Your task to perform on an android device: open app "Airtel Thanks" Image 0: 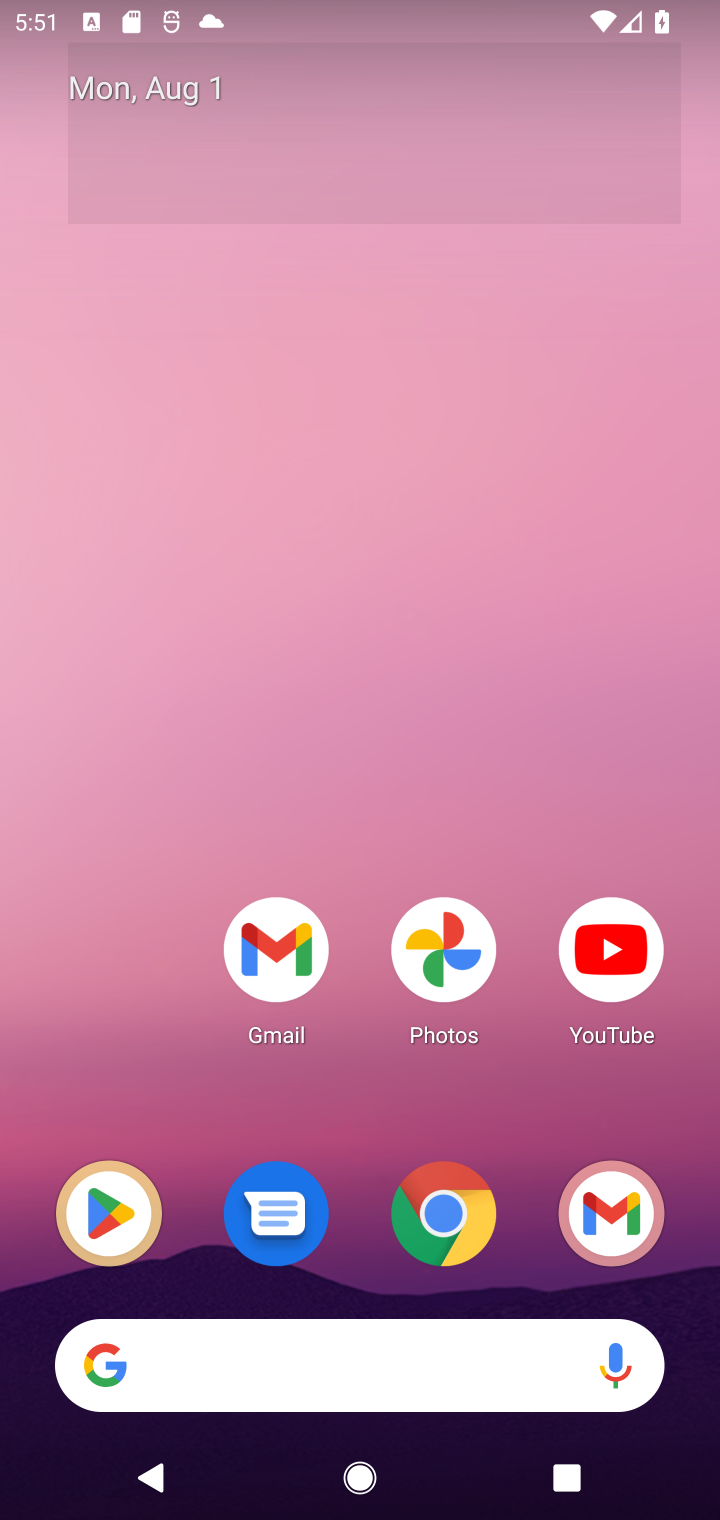
Step 0: drag from (518, 1084) to (467, 14)
Your task to perform on an android device: open app "Airtel Thanks" Image 1: 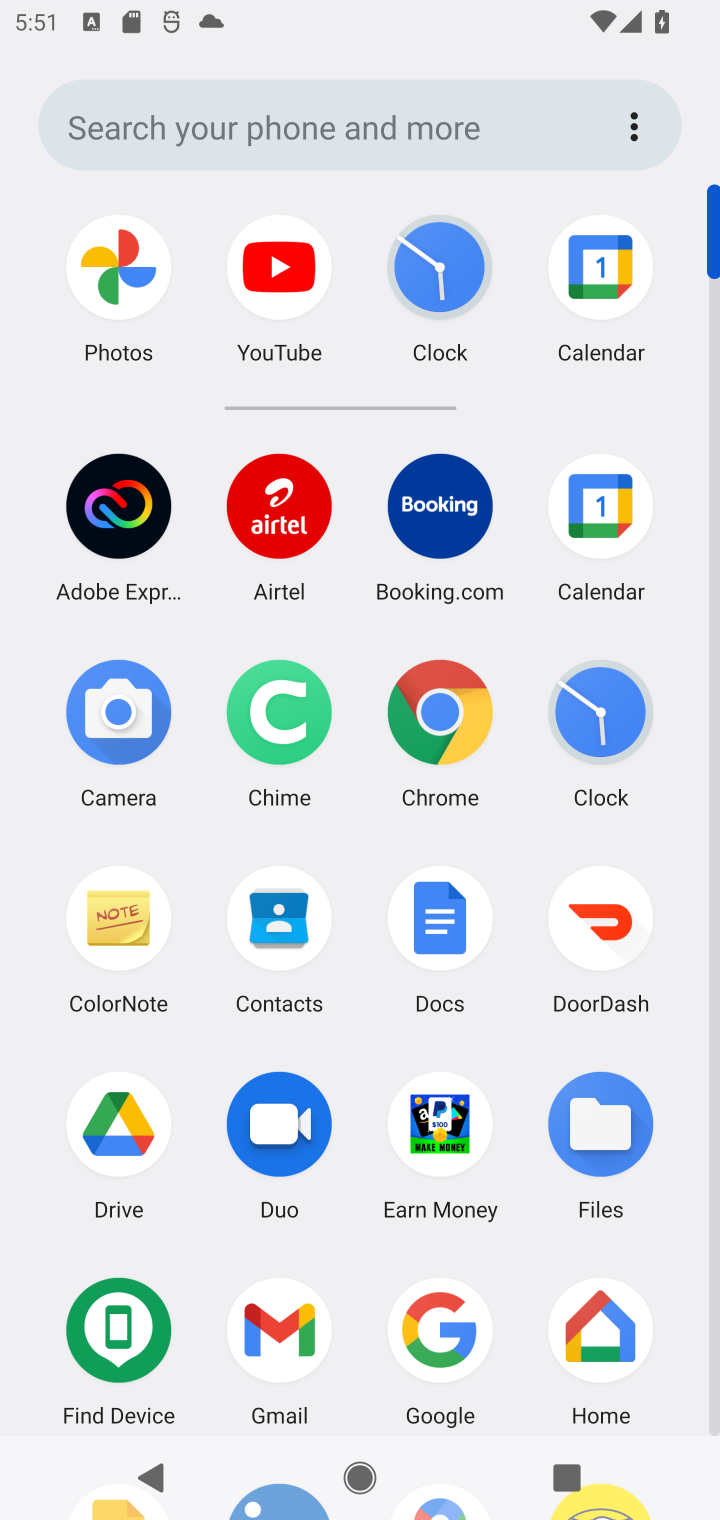
Step 1: drag from (507, 1177) to (520, 375)
Your task to perform on an android device: open app "Airtel Thanks" Image 2: 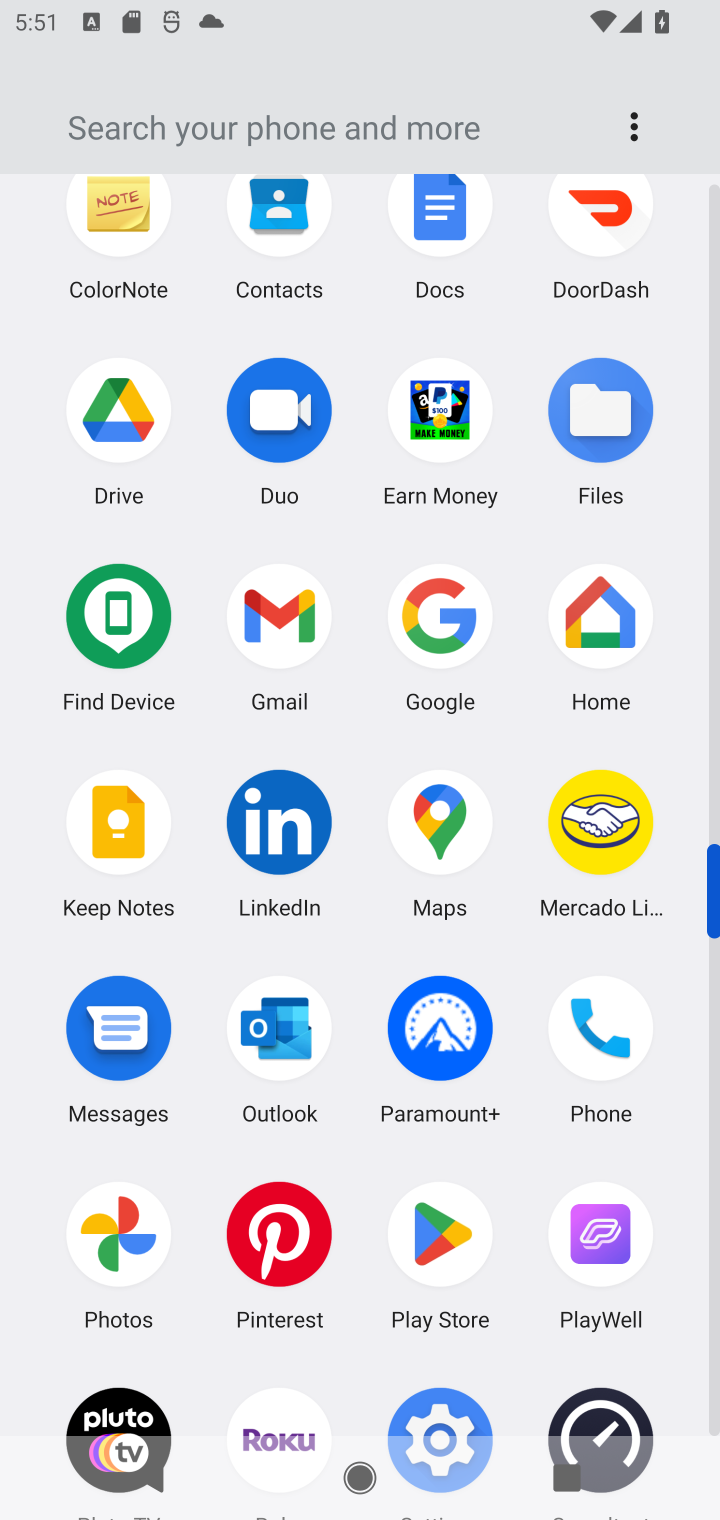
Step 2: click (442, 1236)
Your task to perform on an android device: open app "Airtel Thanks" Image 3: 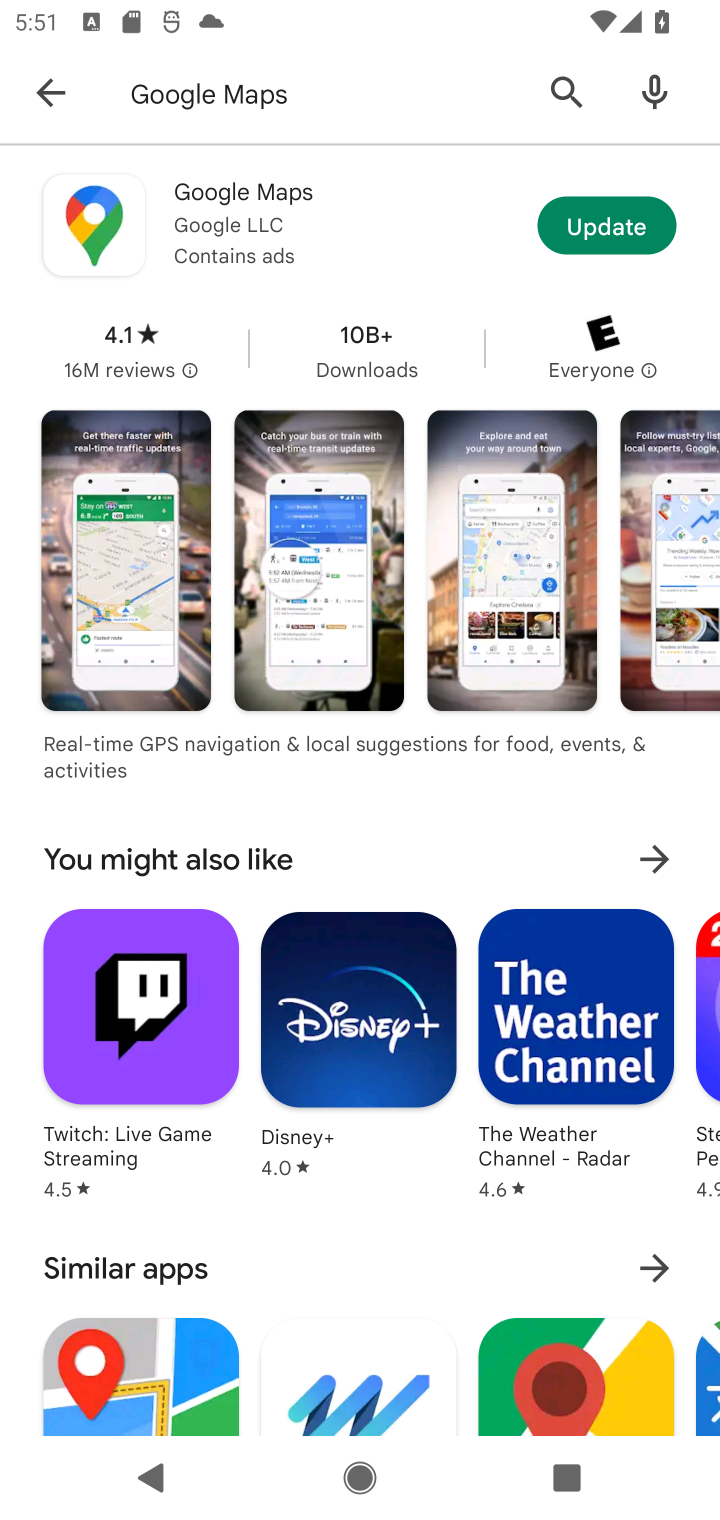
Step 3: click (316, 64)
Your task to perform on an android device: open app "Airtel Thanks" Image 4: 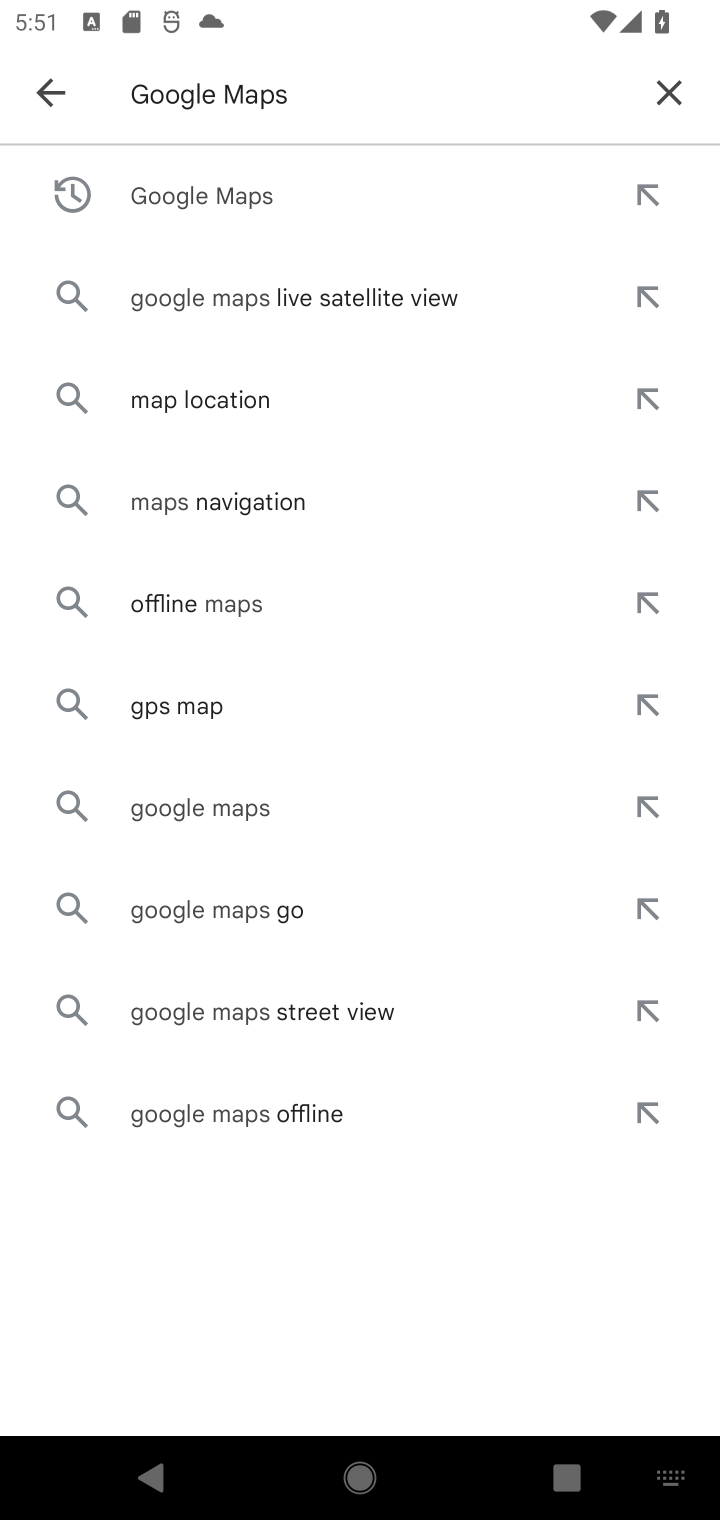
Step 4: click (682, 79)
Your task to perform on an android device: open app "Airtel Thanks" Image 5: 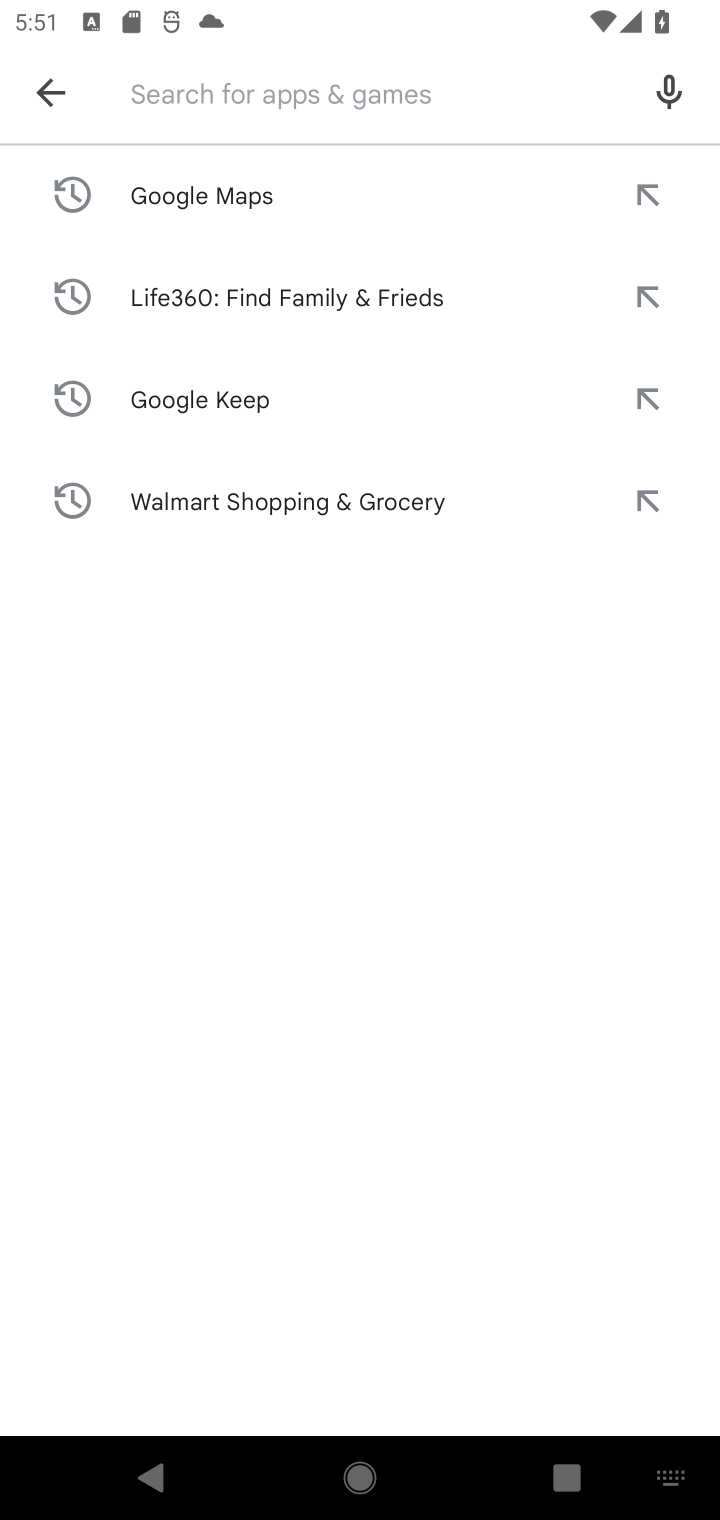
Step 5: type "Airtel Thanks"
Your task to perform on an android device: open app "Airtel Thanks" Image 6: 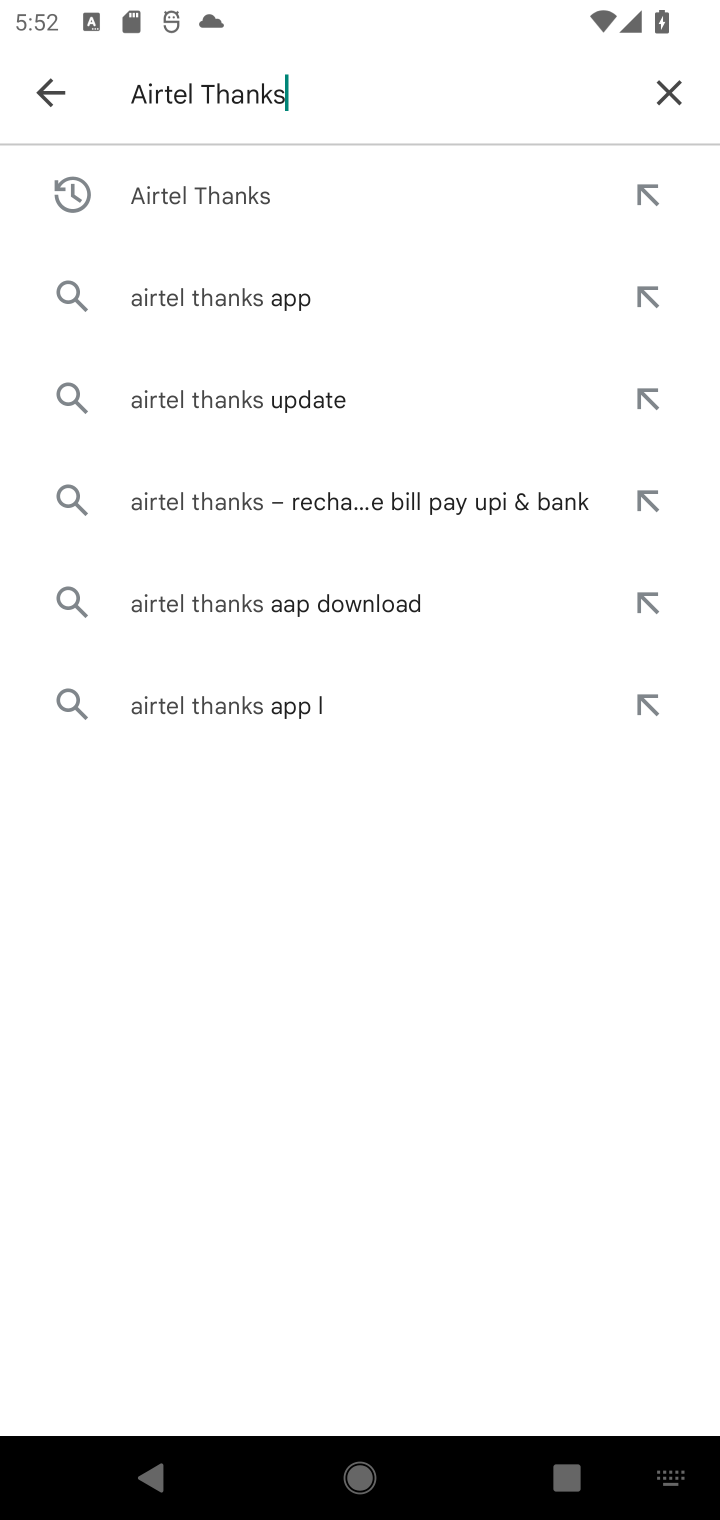
Step 6: press enter
Your task to perform on an android device: open app "Airtel Thanks" Image 7: 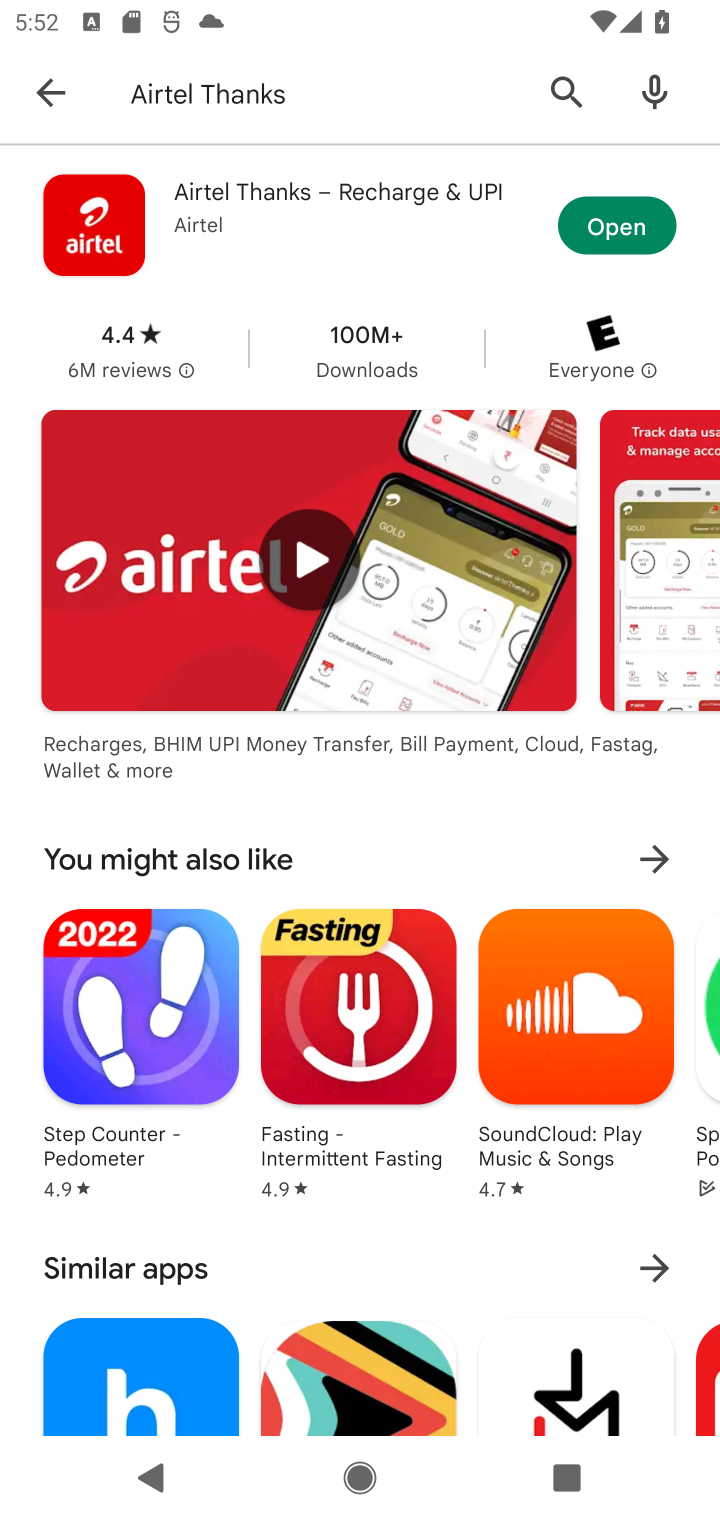
Step 7: click (646, 225)
Your task to perform on an android device: open app "Airtel Thanks" Image 8: 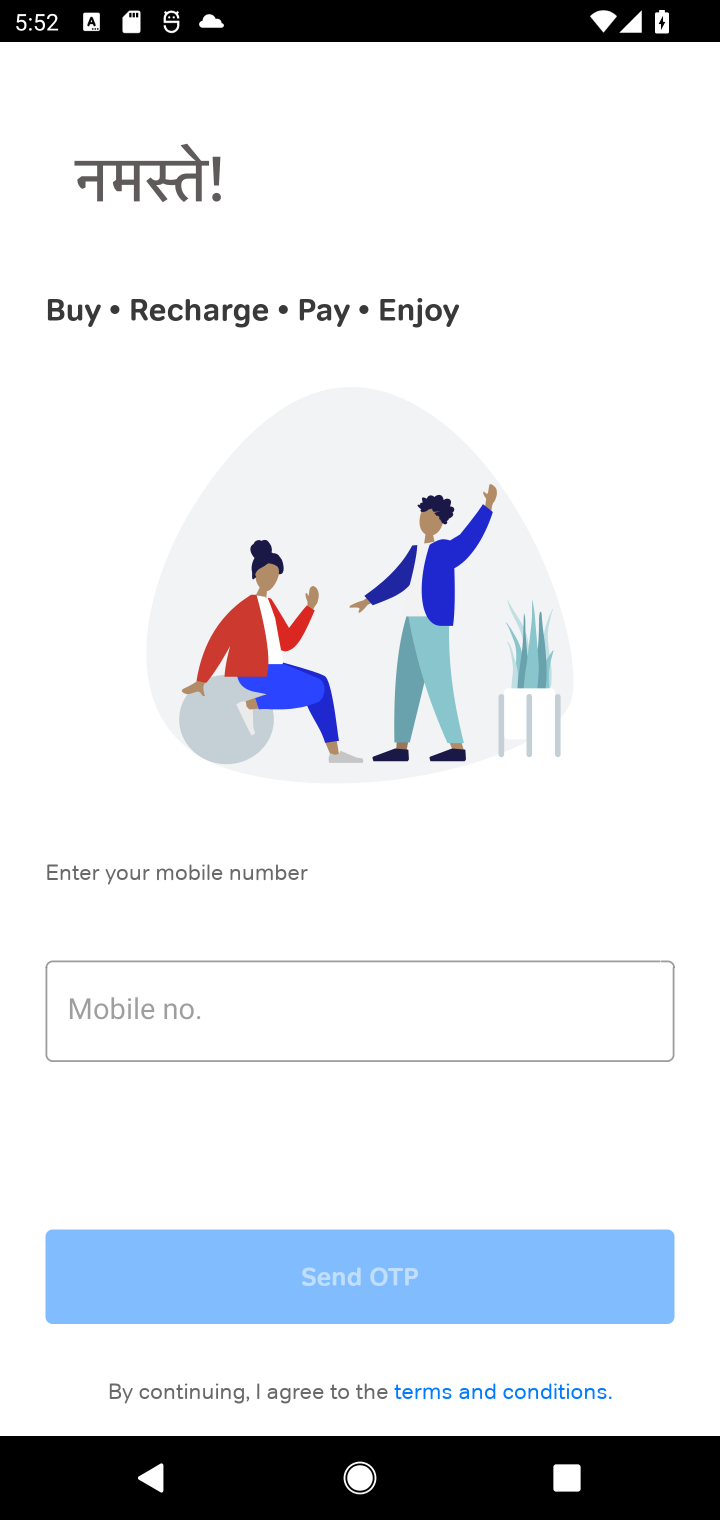
Step 8: task complete